Your task to perform on an android device: delete a single message in the gmail app Image 0: 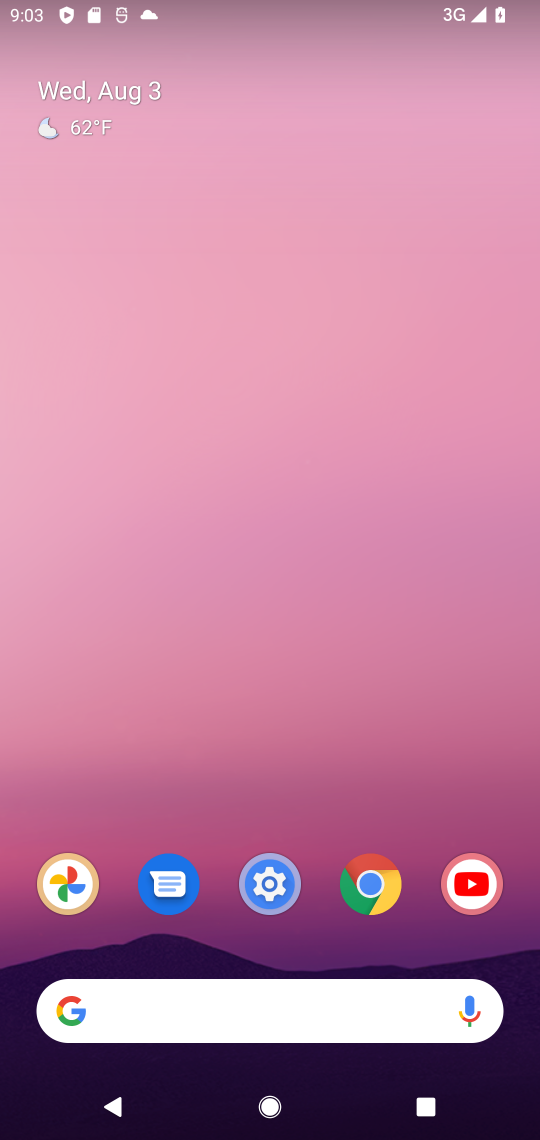
Step 0: drag from (227, 873) to (248, 383)
Your task to perform on an android device: delete a single message in the gmail app Image 1: 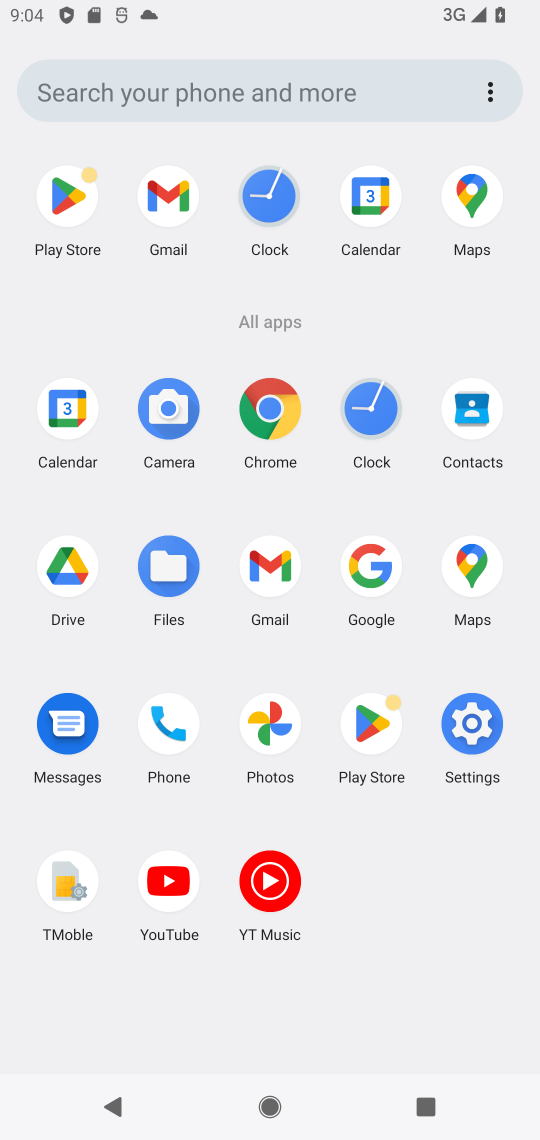
Step 1: click (265, 584)
Your task to perform on an android device: delete a single message in the gmail app Image 2: 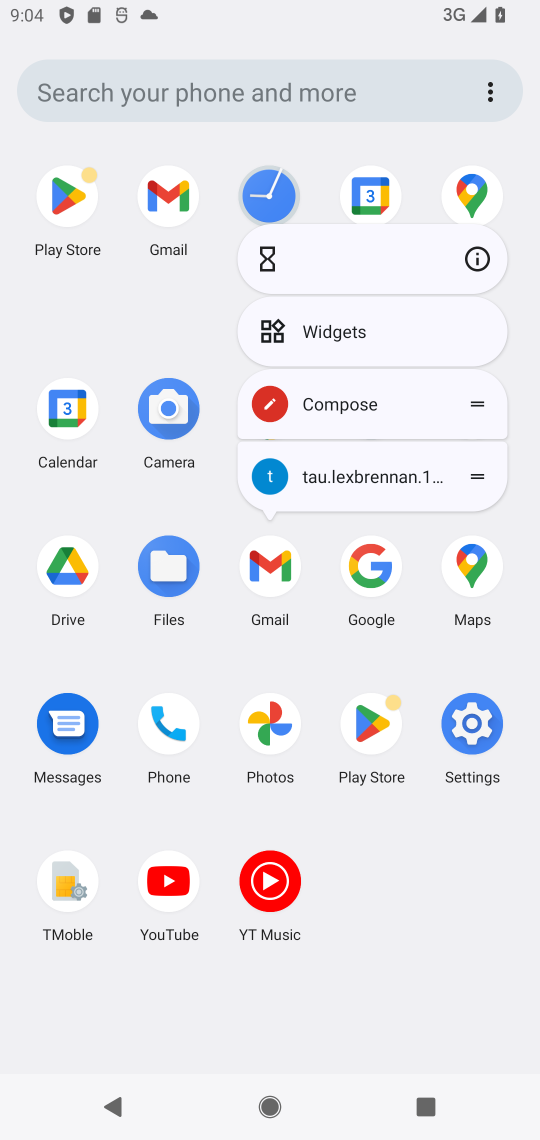
Step 2: click (468, 275)
Your task to perform on an android device: delete a single message in the gmail app Image 3: 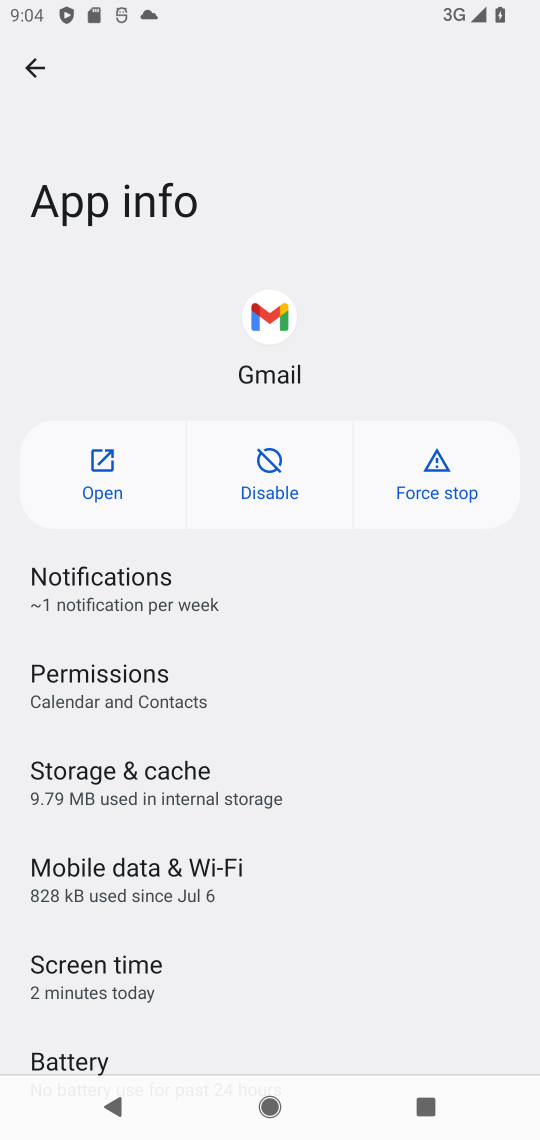
Step 3: click (112, 465)
Your task to perform on an android device: delete a single message in the gmail app Image 4: 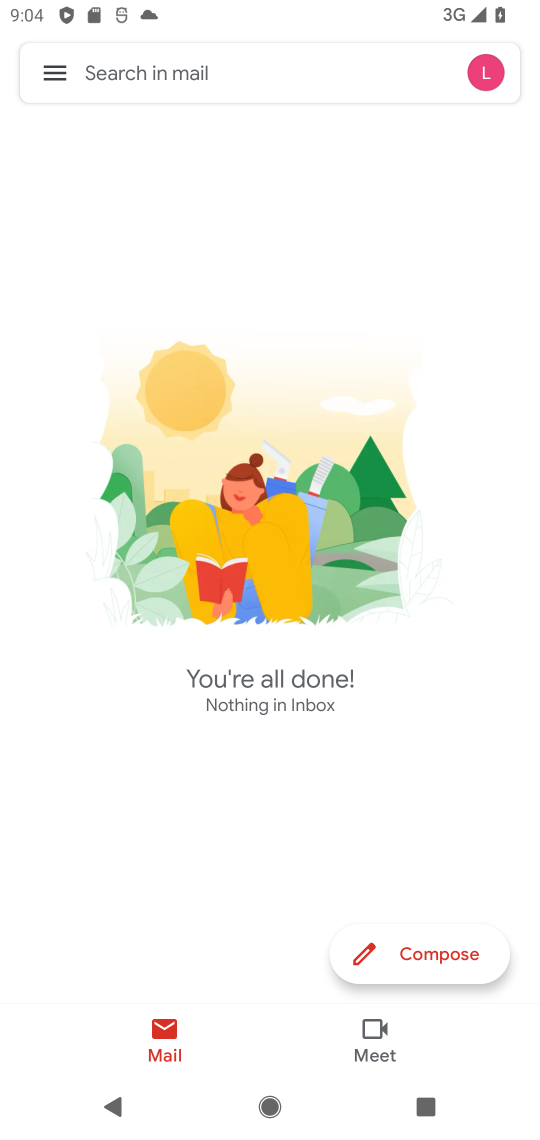
Step 4: drag from (260, 897) to (277, 405)
Your task to perform on an android device: delete a single message in the gmail app Image 5: 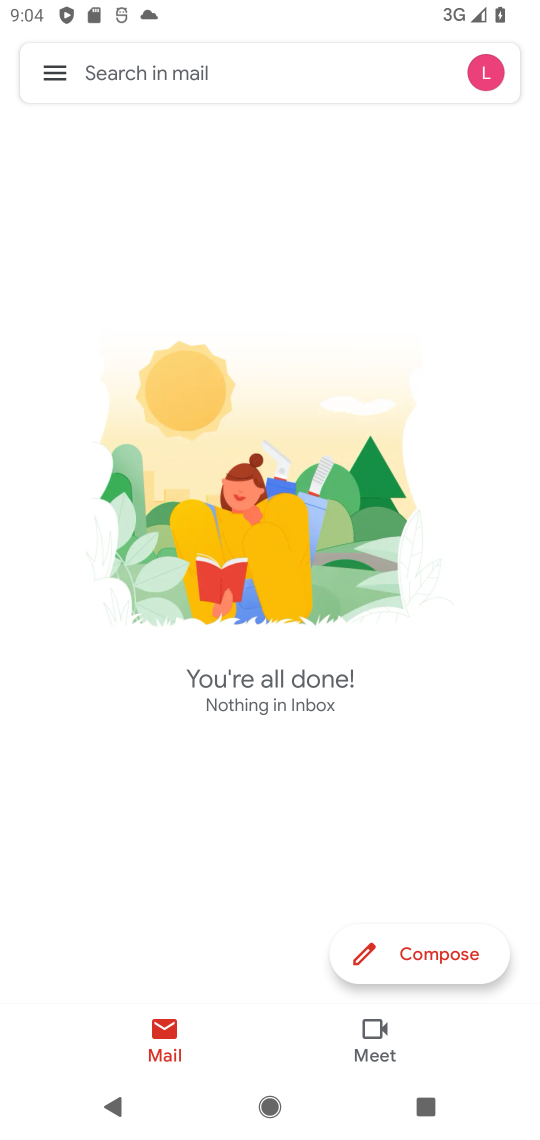
Step 5: drag from (178, 985) to (175, 326)
Your task to perform on an android device: delete a single message in the gmail app Image 6: 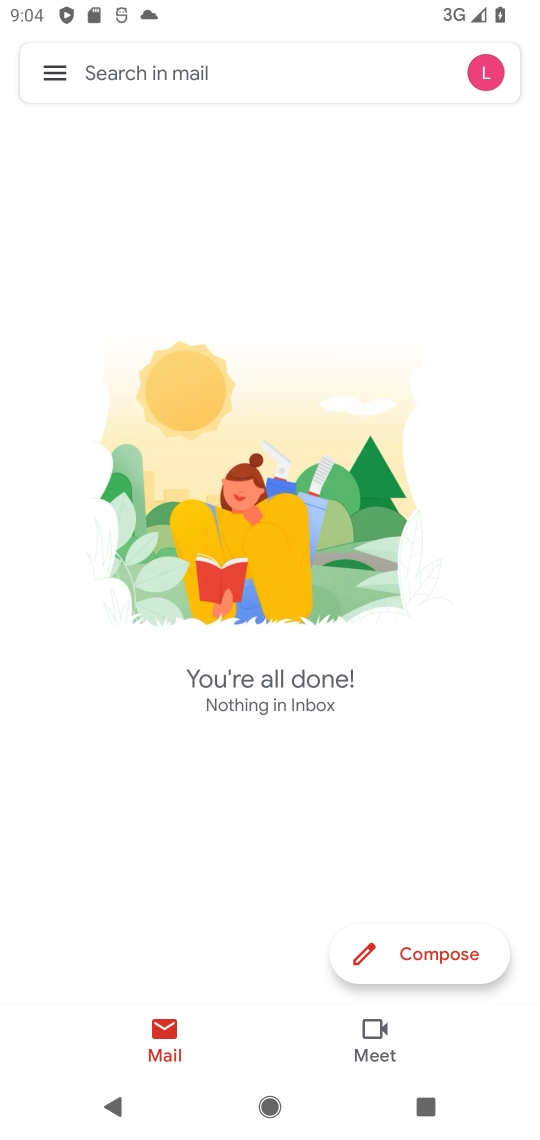
Step 6: drag from (257, 943) to (129, 346)
Your task to perform on an android device: delete a single message in the gmail app Image 7: 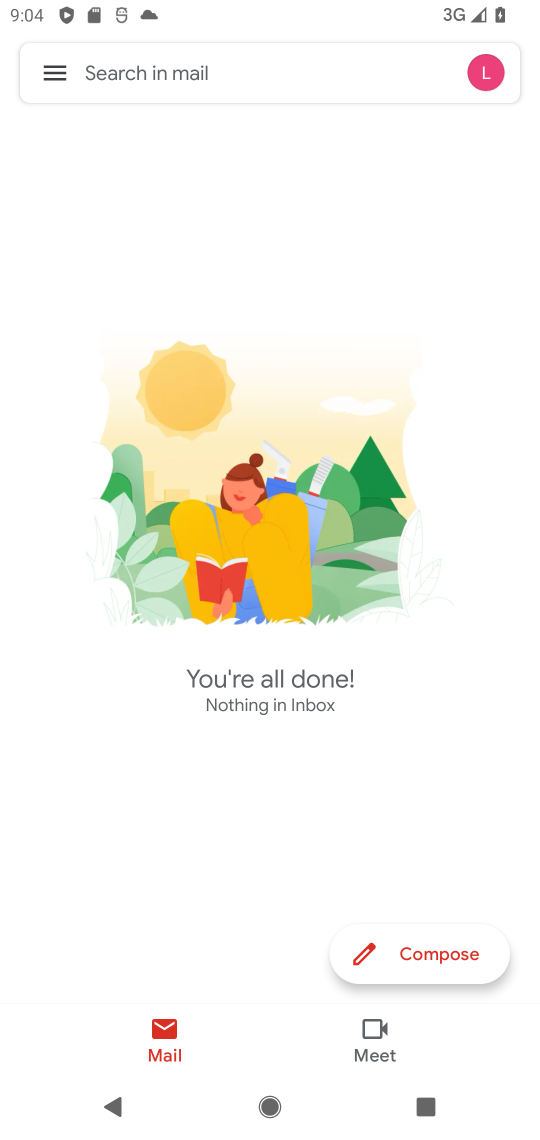
Step 7: click (43, 58)
Your task to perform on an android device: delete a single message in the gmail app Image 8: 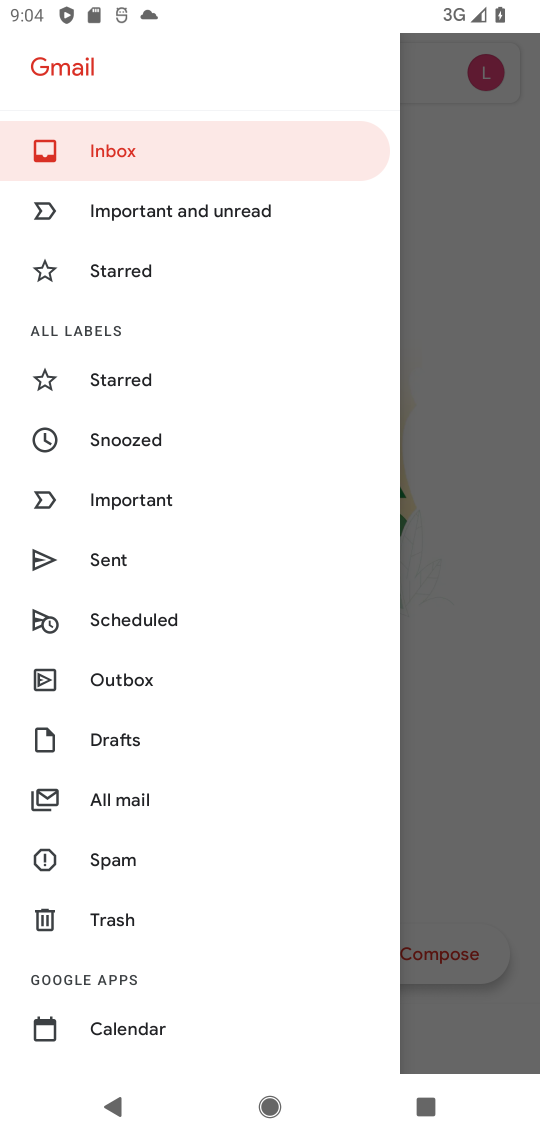
Step 8: task complete